Your task to perform on an android device: open a bookmark in the chrome app Image 0: 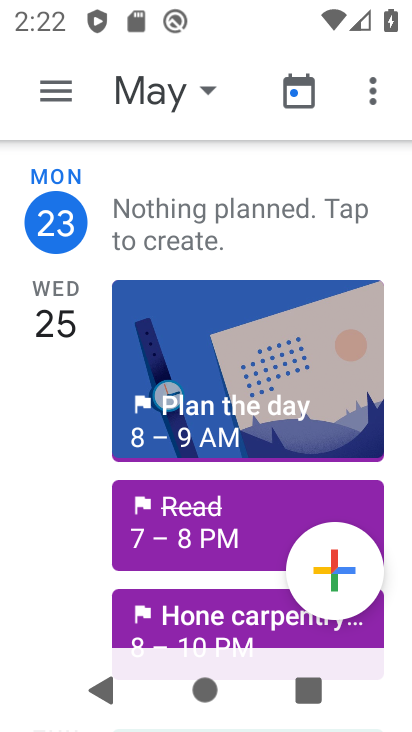
Step 0: press home button
Your task to perform on an android device: open a bookmark in the chrome app Image 1: 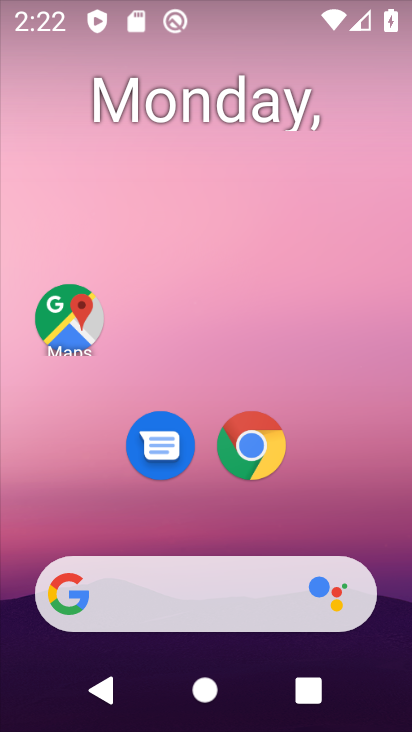
Step 1: click (258, 457)
Your task to perform on an android device: open a bookmark in the chrome app Image 2: 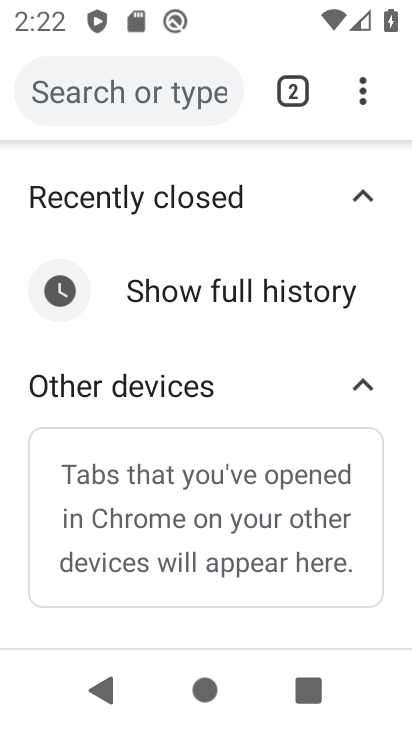
Step 2: click (376, 81)
Your task to perform on an android device: open a bookmark in the chrome app Image 3: 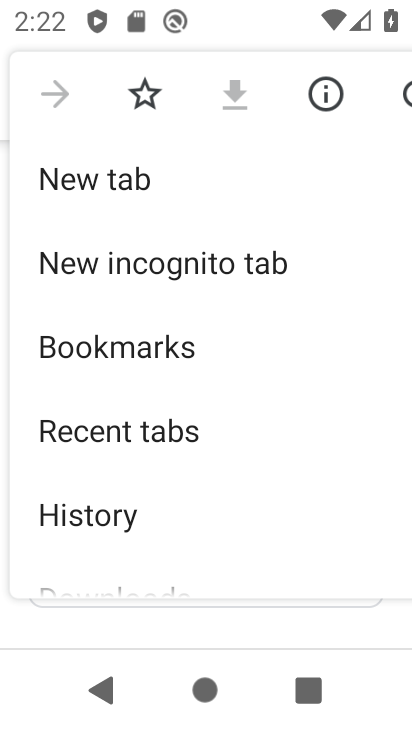
Step 3: click (54, 357)
Your task to perform on an android device: open a bookmark in the chrome app Image 4: 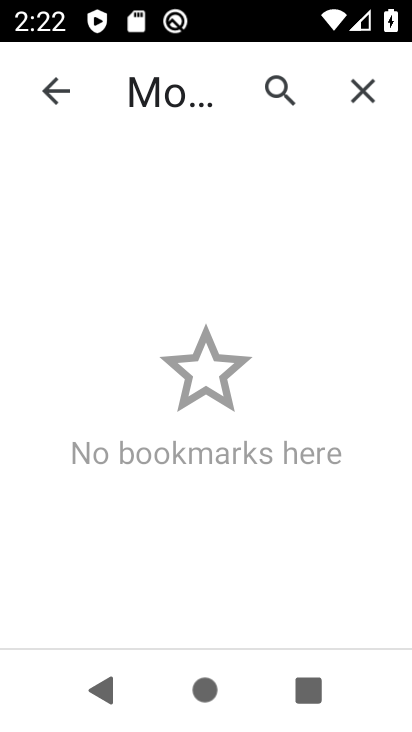
Step 4: task complete